Your task to perform on an android device: Open the calendar app, open the side menu, and click the "Day" option Image 0: 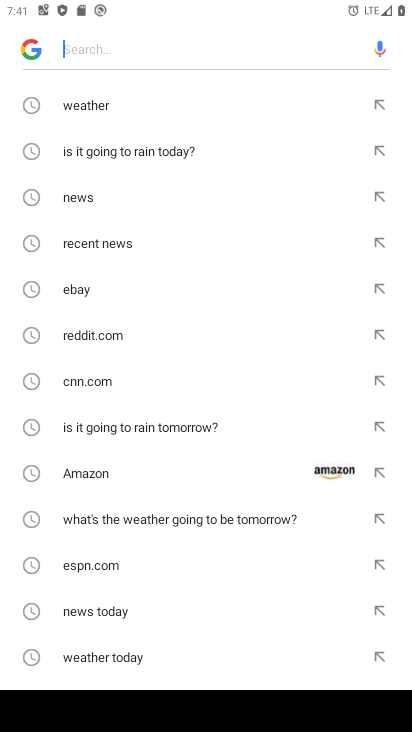
Step 0: press home button
Your task to perform on an android device: Open the calendar app, open the side menu, and click the "Day" option Image 1: 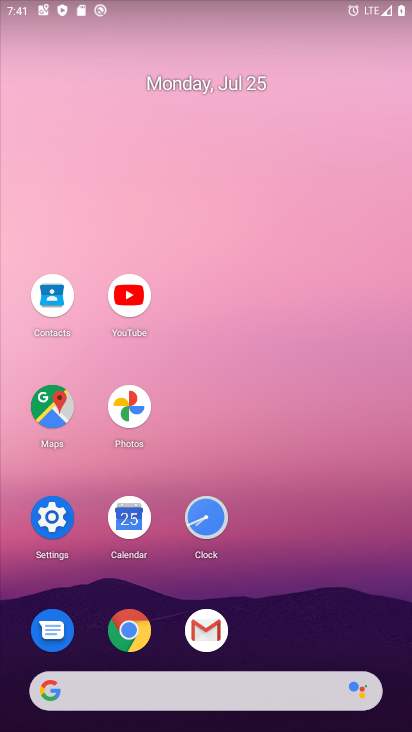
Step 1: click (136, 528)
Your task to perform on an android device: Open the calendar app, open the side menu, and click the "Day" option Image 2: 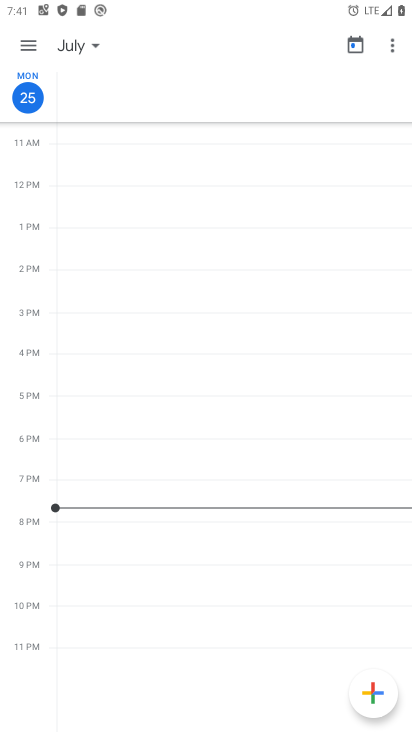
Step 2: click (30, 36)
Your task to perform on an android device: Open the calendar app, open the side menu, and click the "Day" option Image 3: 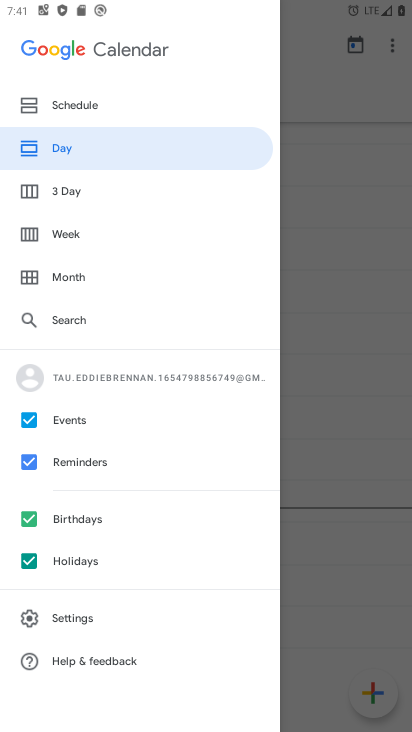
Step 3: click (55, 139)
Your task to perform on an android device: Open the calendar app, open the side menu, and click the "Day" option Image 4: 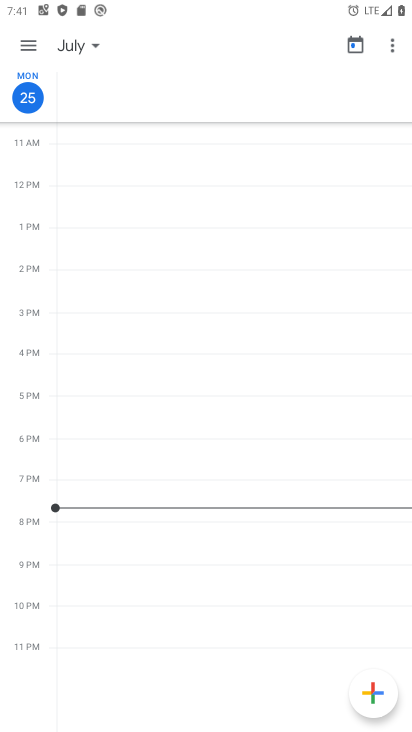
Step 4: task complete